Your task to perform on an android device: Open wifi settings Image 0: 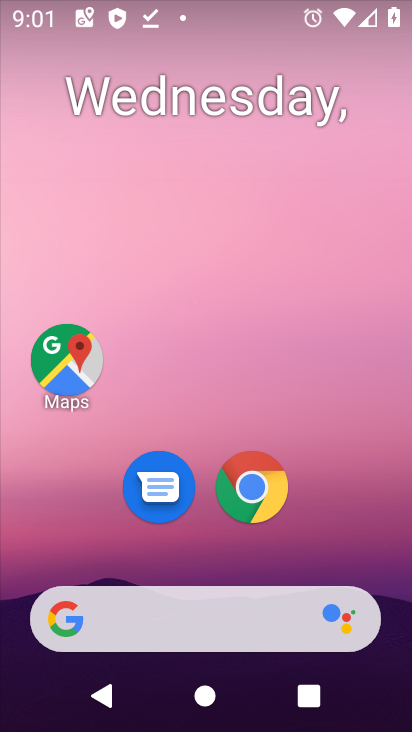
Step 0: drag from (257, 703) to (211, 273)
Your task to perform on an android device: Open wifi settings Image 1: 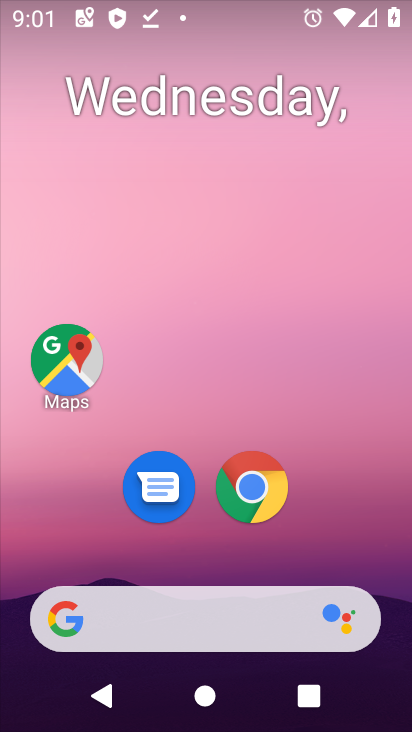
Step 1: drag from (242, 690) to (402, 82)
Your task to perform on an android device: Open wifi settings Image 2: 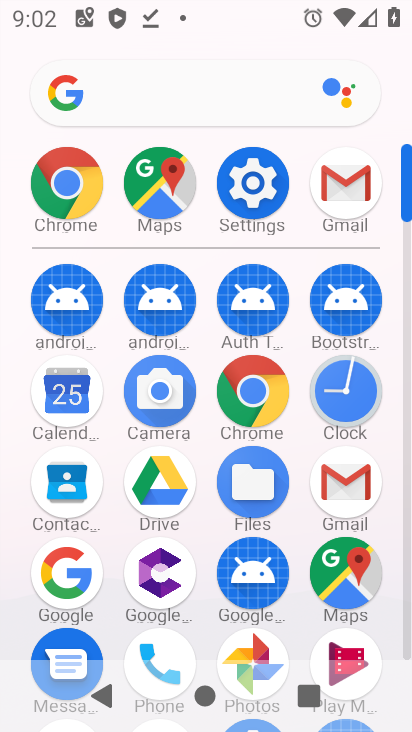
Step 2: click (238, 177)
Your task to perform on an android device: Open wifi settings Image 3: 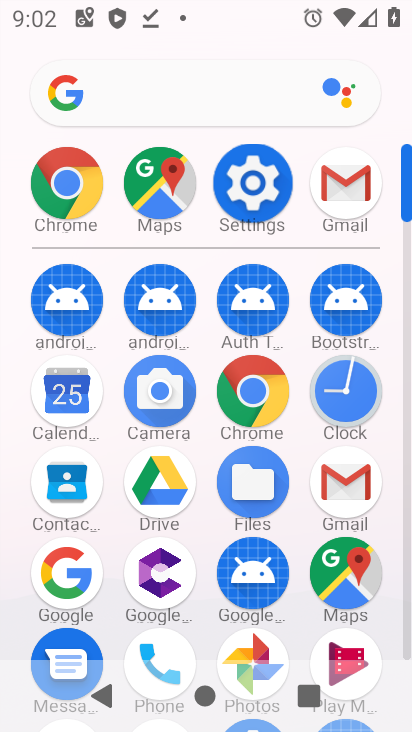
Step 3: click (241, 180)
Your task to perform on an android device: Open wifi settings Image 4: 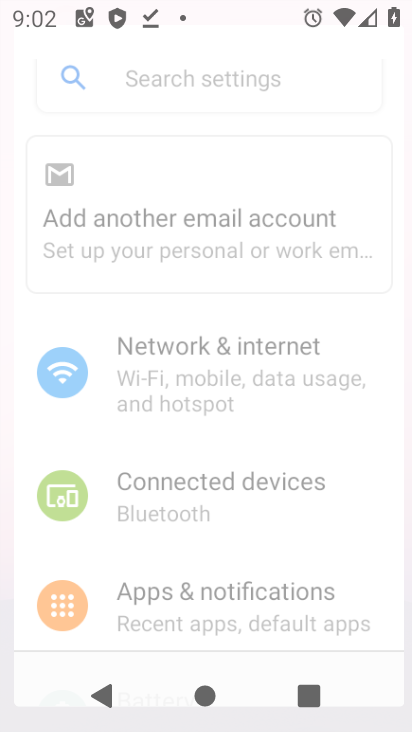
Step 4: click (241, 180)
Your task to perform on an android device: Open wifi settings Image 5: 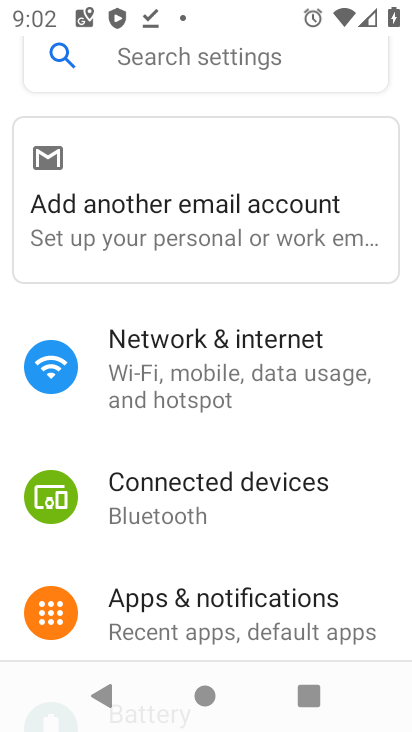
Step 5: click (217, 379)
Your task to perform on an android device: Open wifi settings Image 6: 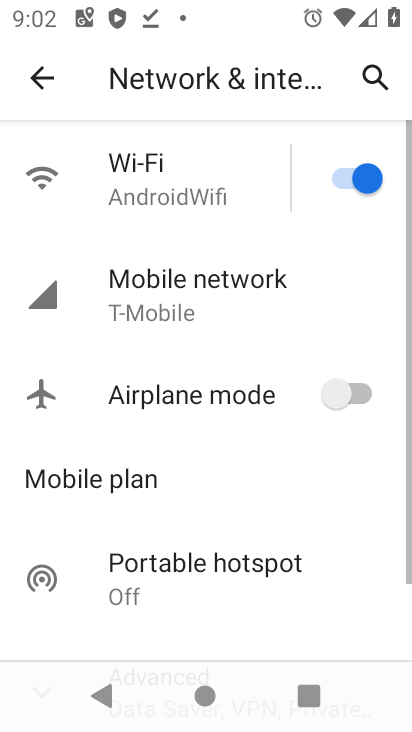
Step 6: task complete